Your task to perform on an android device: When is my next appointment? Image 0: 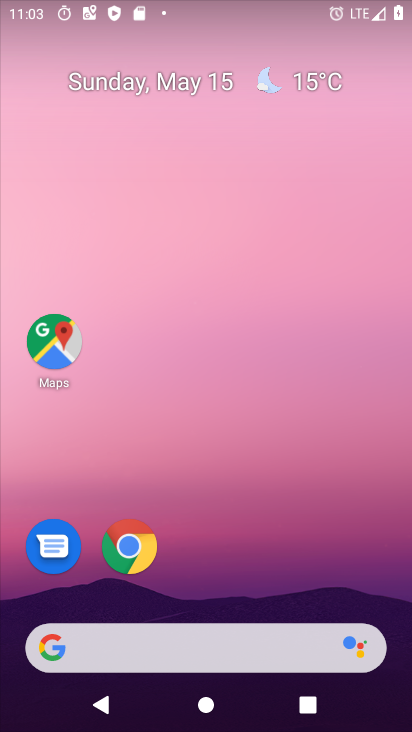
Step 0: drag from (399, 660) to (326, 225)
Your task to perform on an android device: When is my next appointment? Image 1: 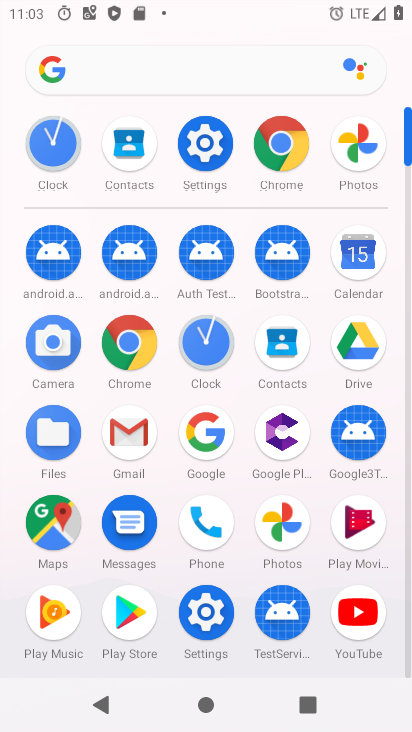
Step 1: click (355, 241)
Your task to perform on an android device: When is my next appointment? Image 2: 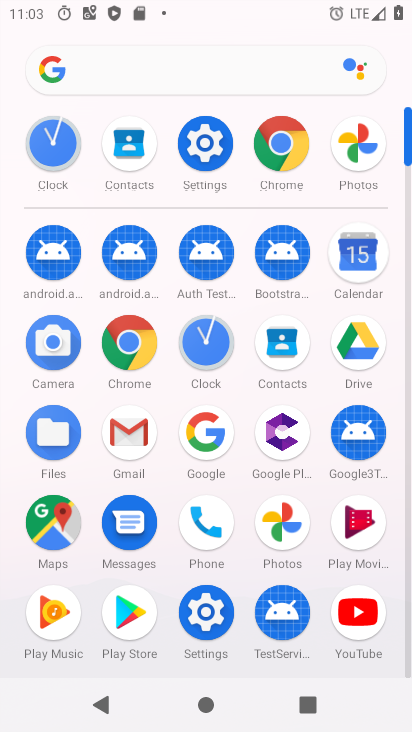
Step 2: click (355, 241)
Your task to perform on an android device: When is my next appointment? Image 3: 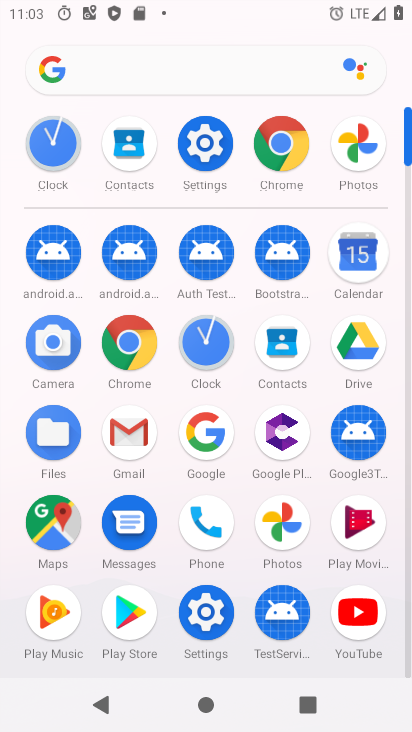
Step 3: click (355, 241)
Your task to perform on an android device: When is my next appointment? Image 4: 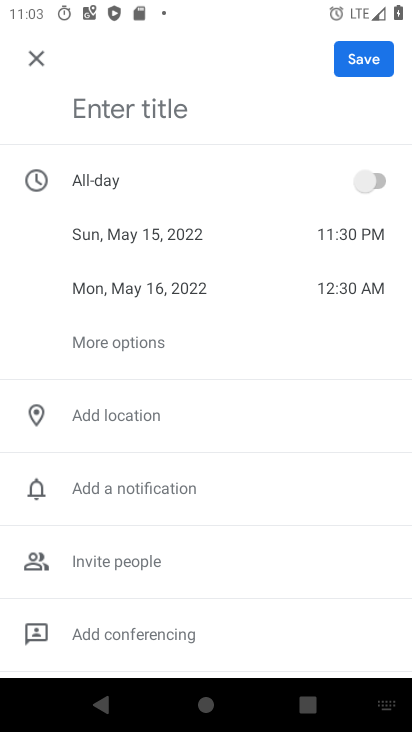
Step 4: click (25, 51)
Your task to perform on an android device: When is my next appointment? Image 5: 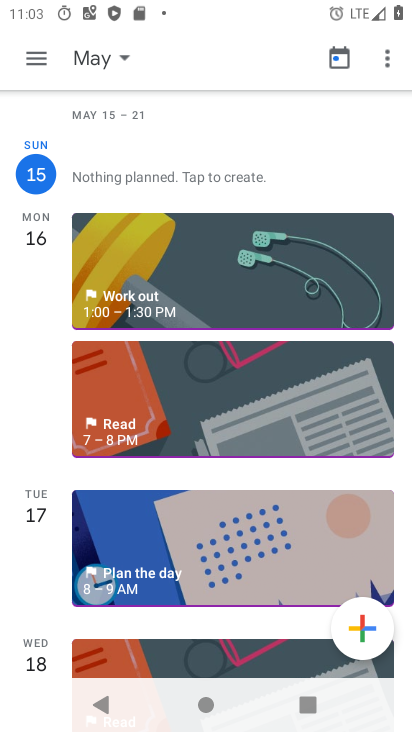
Step 5: drag from (174, 540) to (155, 277)
Your task to perform on an android device: When is my next appointment? Image 6: 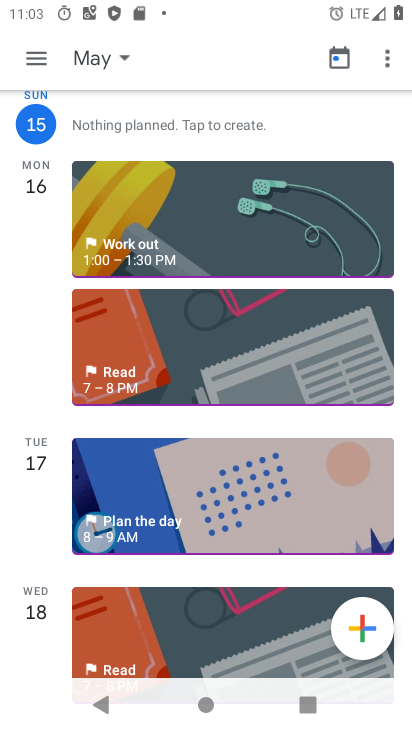
Step 6: drag from (260, 477) to (194, 150)
Your task to perform on an android device: When is my next appointment? Image 7: 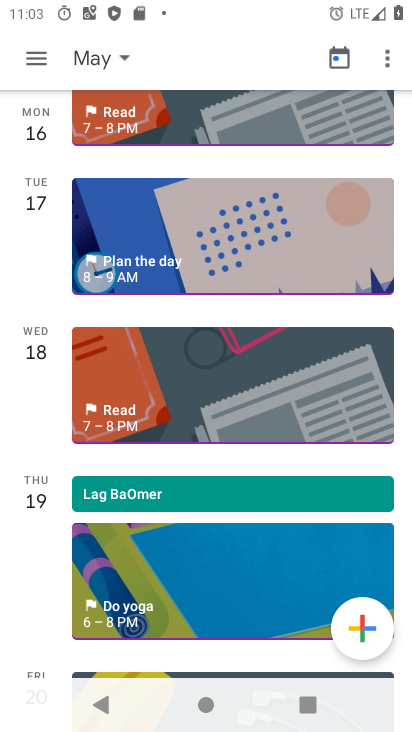
Step 7: drag from (232, 452) to (177, 128)
Your task to perform on an android device: When is my next appointment? Image 8: 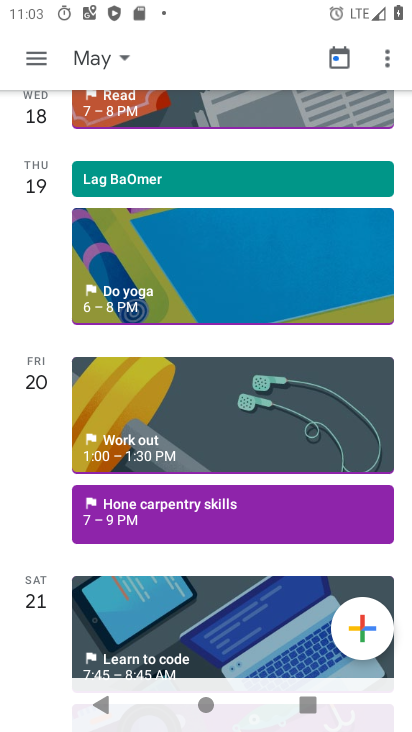
Step 8: click (144, 414)
Your task to perform on an android device: When is my next appointment? Image 9: 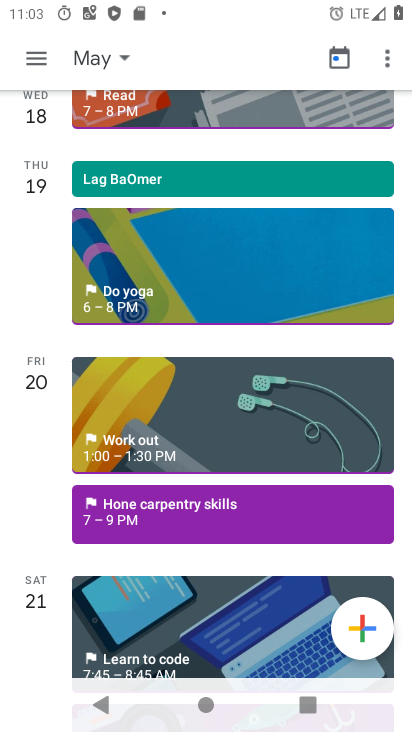
Step 9: drag from (140, 457) to (122, 190)
Your task to perform on an android device: When is my next appointment? Image 10: 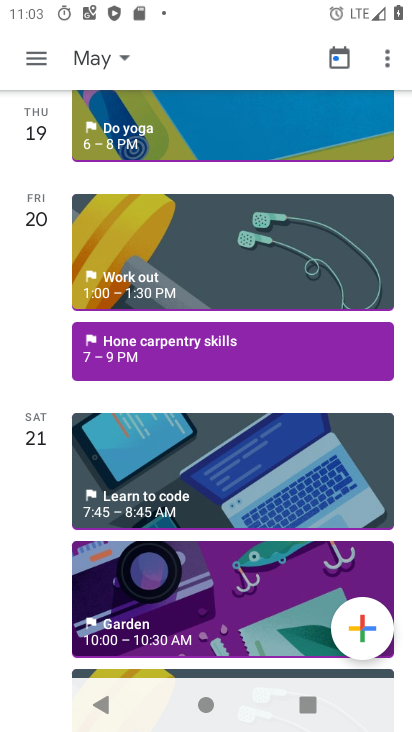
Step 10: drag from (211, 508) to (193, 188)
Your task to perform on an android device: When is my next appointment? Image 11: 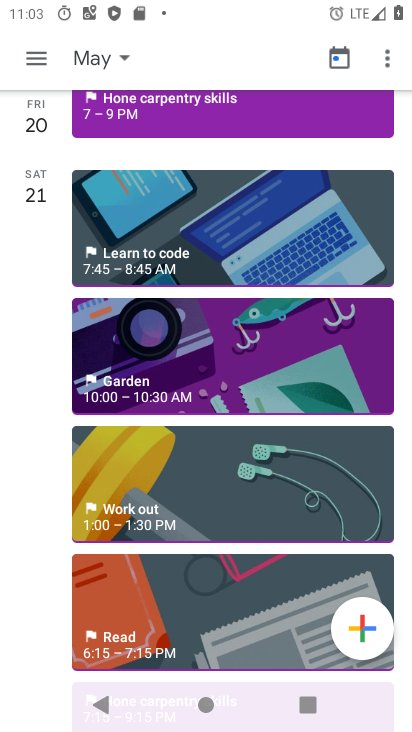
Step 11: click (158, 90)
Your task to perform on an android device: When is my next appointment? Image 12: 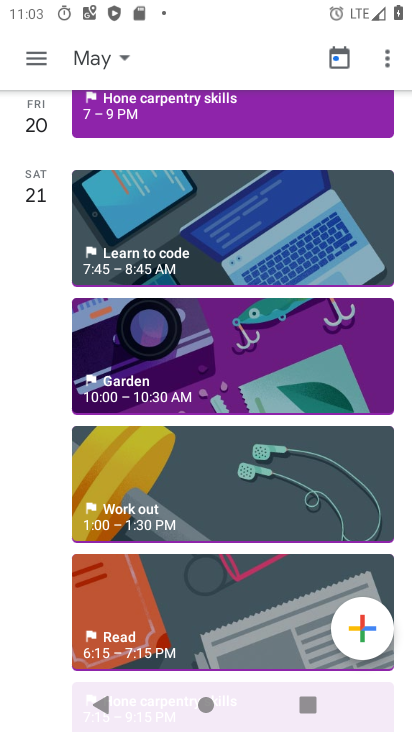
Step 12: click (133, 382)
Your task to perform on an android device: When is my next appointment? Image 13: 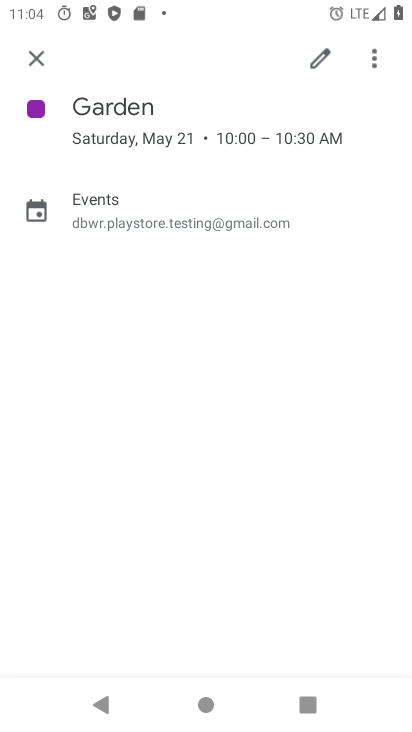
Step 13: click (32, 56)
Your task to perform on an android device: When is my next appointment? Image 14: 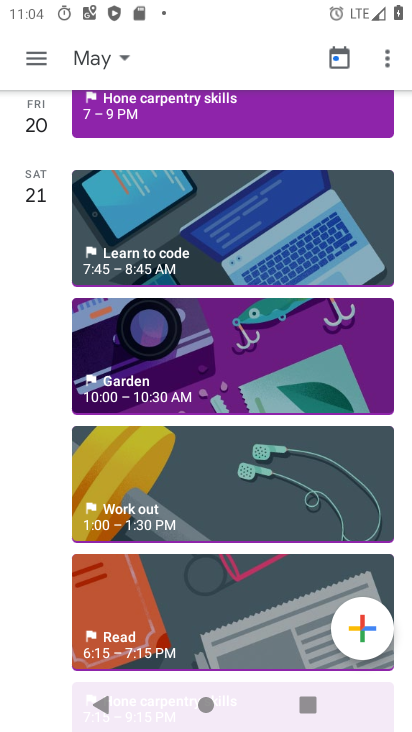
Step 14: task complete